Your task to perform on an android device: Show me the alarms in the clock app Image 0: 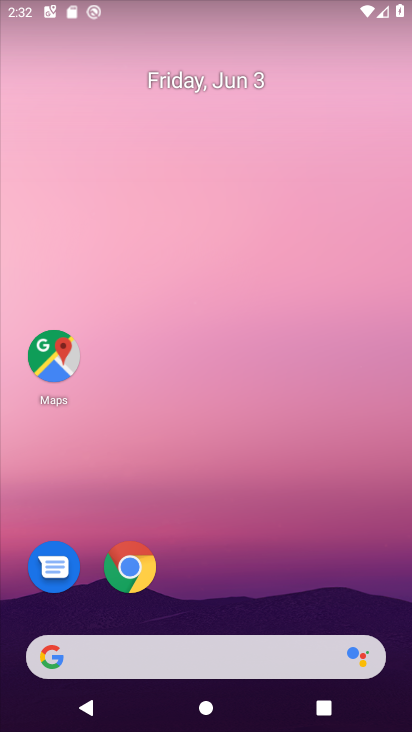
Step 0: drag from (200, 594) to (211, 303)
Your task to perform on an android device: Show me the alarms in the clock app Image 1: 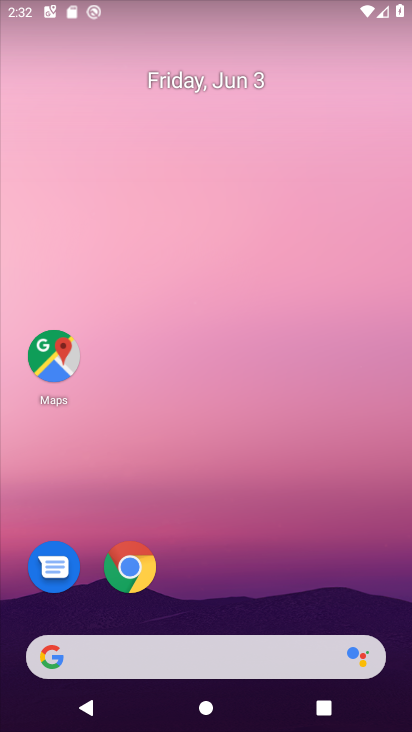
Step 1: drag from (216, 590) to (220, 284)
Your task to perform on an android device: Show me the alarms in the clock app Image 2: 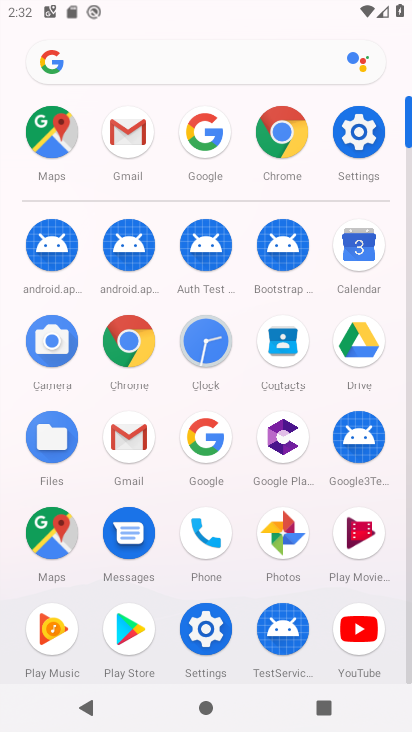
Step 2: click (212, 329)
Your task to perform on an android device: Show me the alarms in the clock app Image 3: 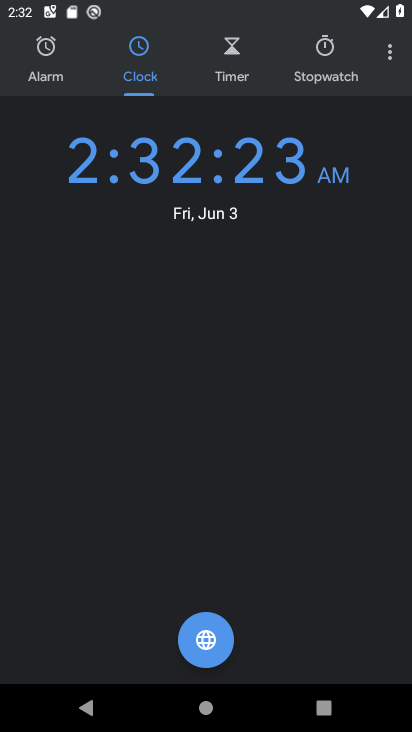
Step 3: click (57, 59)
Your task to perform on an android device: Show me the alarms in the clock app Image 4: 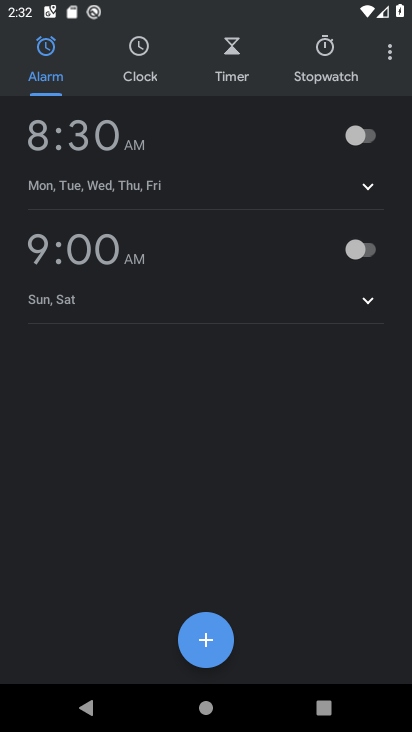
Step 4: task complete